Your task to perform on an android device: Open Reddit.com Image 0: 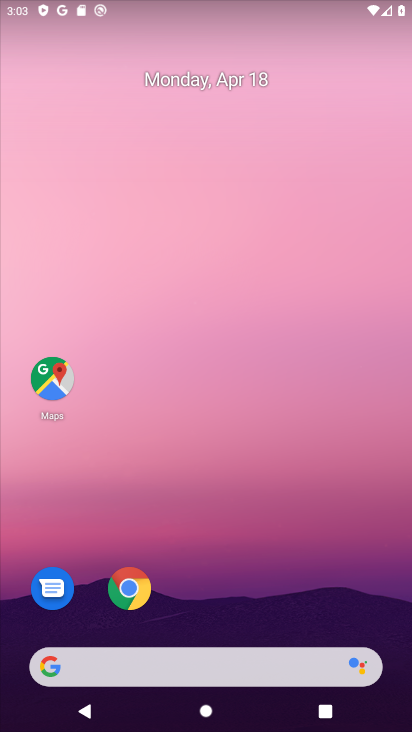
Step 0: drag from (312, 519) to (330, 55)
Your task to perform on an android device: Open Reddit.com Image 1: 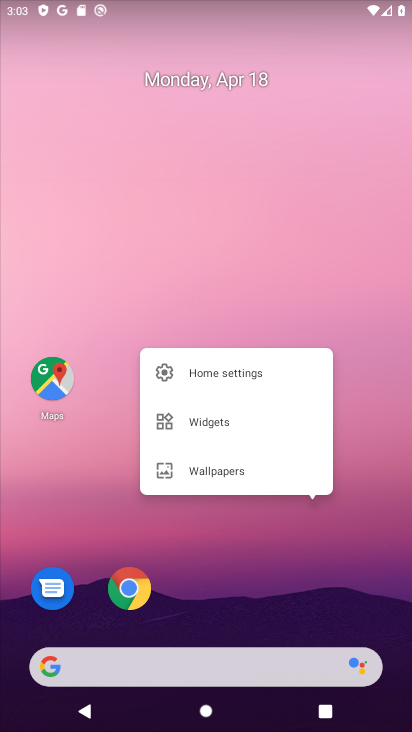
Step 1: drag from (307, 238) to (286, 68)
Your task to perform on an android device: Open Reddit.com Image 2: 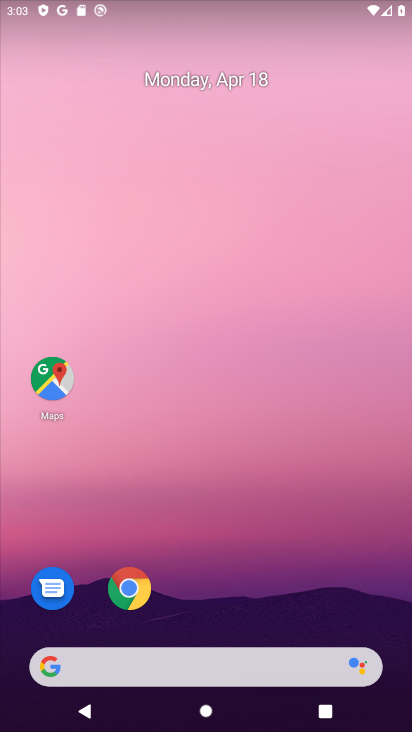
Step 2: drag from (276, 403) to (299, 123)
Your task to perform on an android device: Open Reddit.com Image 3: 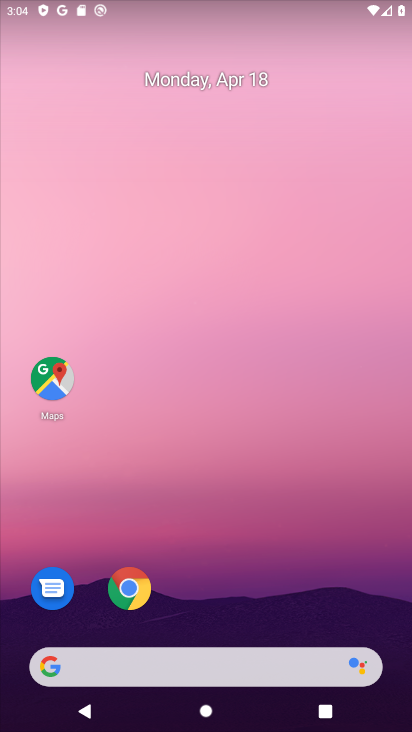
Step 3: drag from (323, 630) to (277, 81)
Your task to perform on an android device: Open Reddit.com Image 4: 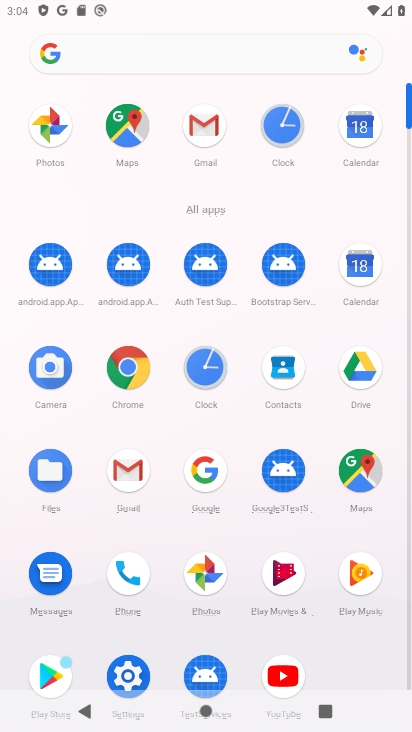
Step 4: drag from (255, 213) to (236, 48)
Your task to perform on an android device: Open Reddit.com Image 5: 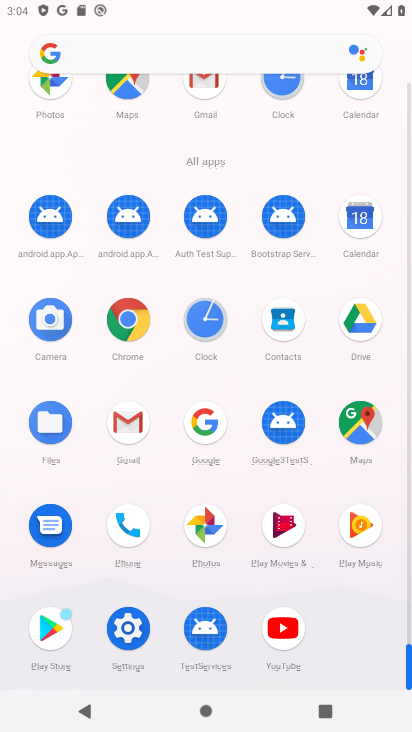
Step 5: click (146, 323)
Your task to perform on an android device: Open Reddit.com Image 6: 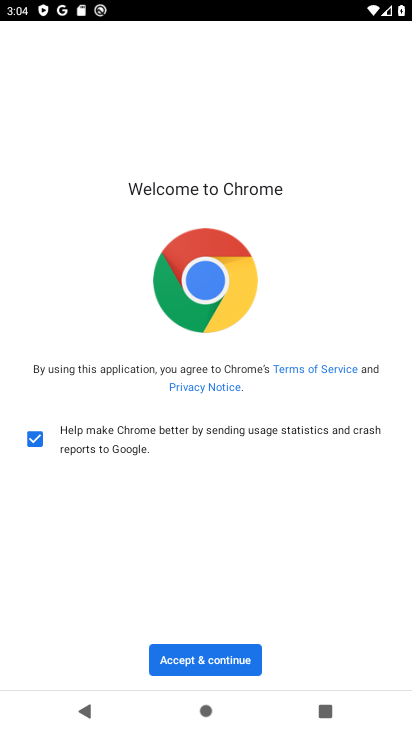
Step 6: click (213, 655)
Your task to perform on an android device: Open Reddit.com Image 7: 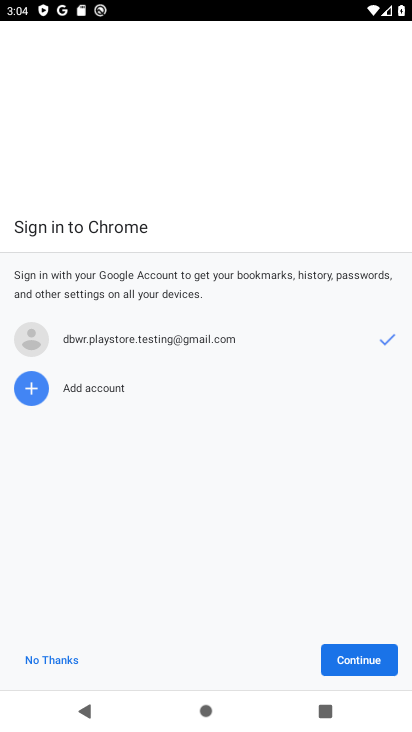
Step 7: click (353, 671)
Your task to perform on an android device: Open Reddit.com Image 8: 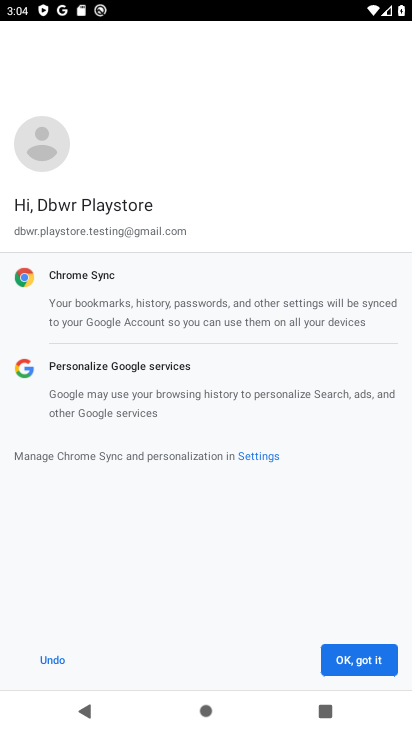
Step 8: click (352, 671)
Your task to perform on an android device: Open Reddit.com Image 9: 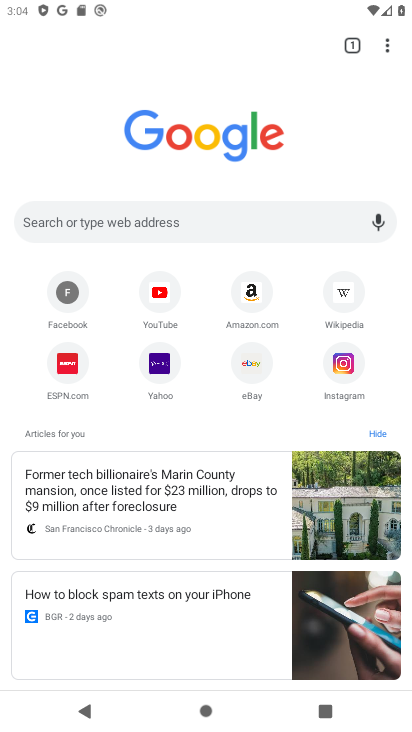
Step 9: click (245, 224)
Your task to perform on an android device: Open Reddit.com Image 10: 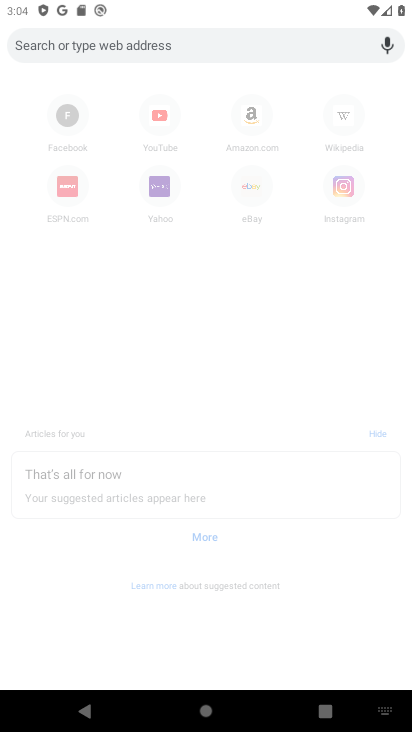
Step 10: type "reddit.com"
Your task to perform on an android device: Open Reddit.com Image 11: 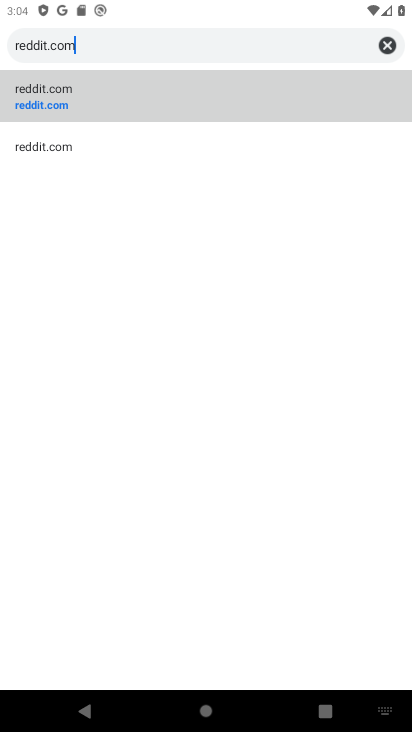
Step 11: click (36, 104)
Your task to perform on an android device: Open Reddit.com Image 12: 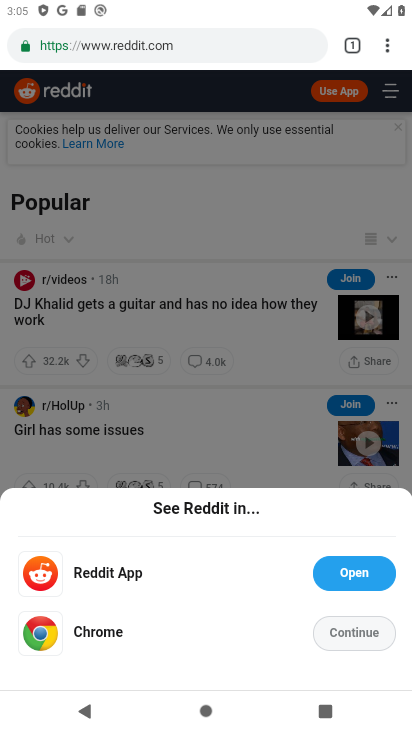
Step 12: click (347, 570)
Your task to perform on an android device: Open Reddit.com Image 13: 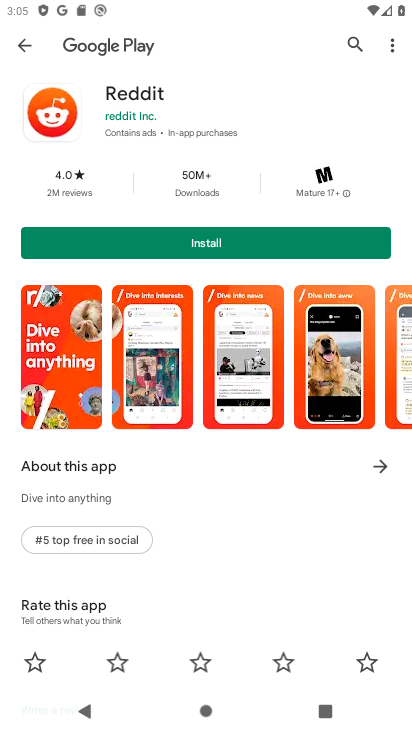
Step 13: click (323, 708)
Your task to perform on an android device: Open Reddit.com Image 14: 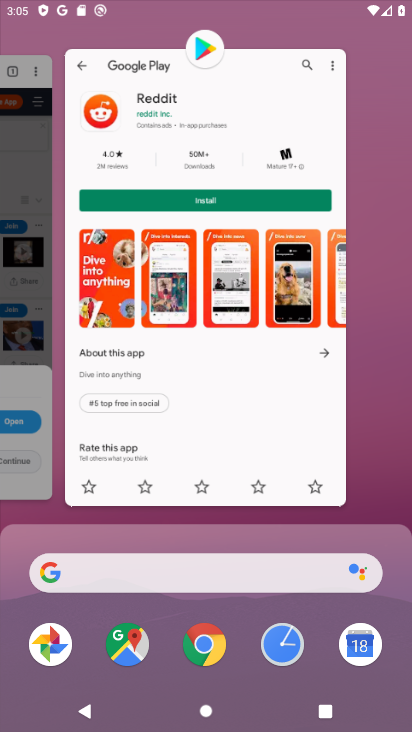
Step 14: click (24, 281)
Your task to perform on an android device: Open Reddit.com Image 15: 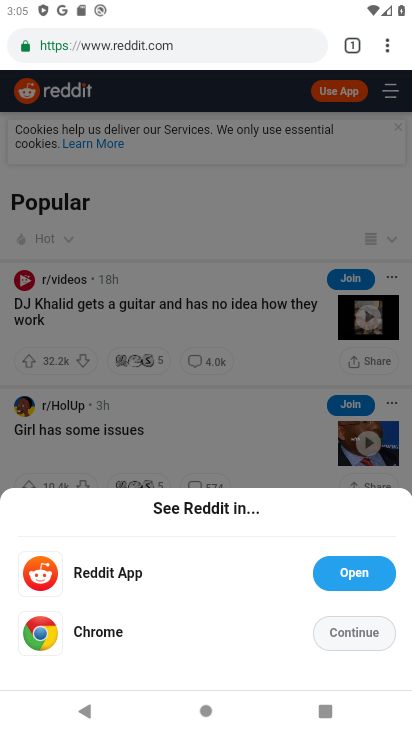
Step 15: click (353, 632)
Your task to perform on an android device: Open Reddit.com Image 16: 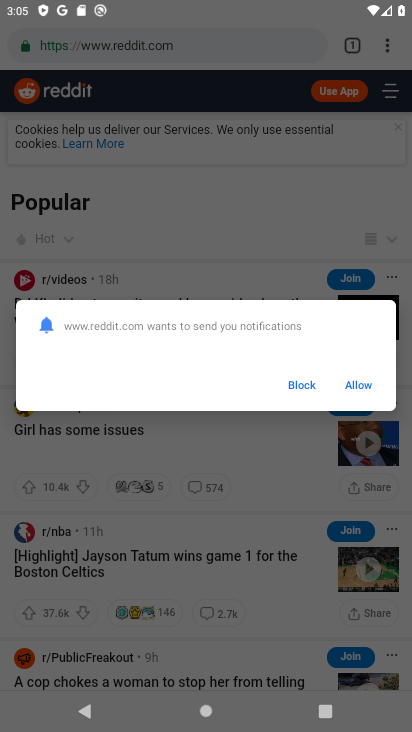
Step 16: click (304, 383)
Your task to perform on an android device: Open Reddit.com Image 17: 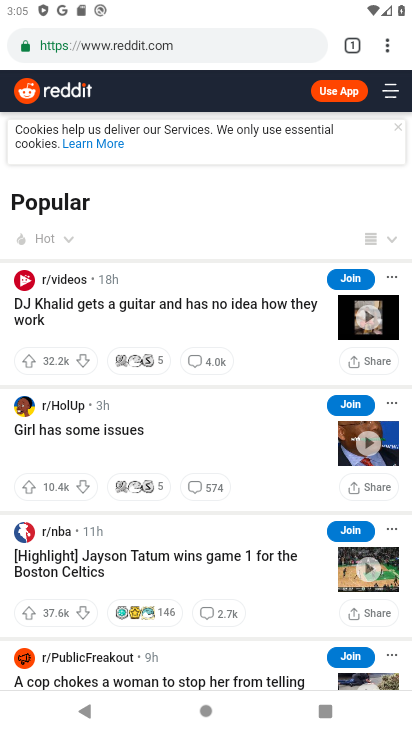
Step 17: task complete